Your task to perform on an android device: turn off sleep mode Image 0: 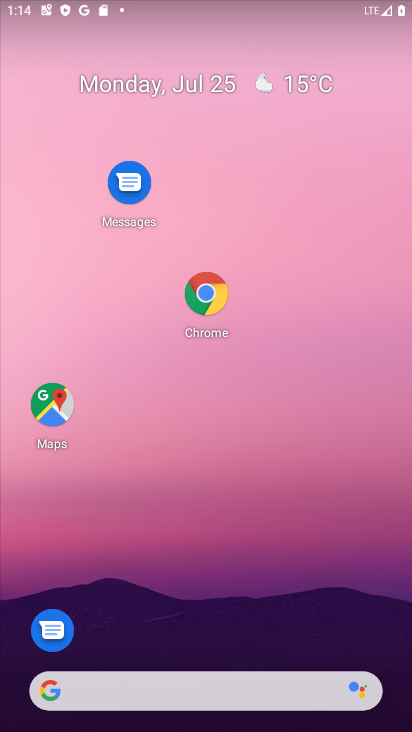
Step 0: press home button
Your task to perform on an android device: turn off sleep mode Image 1: 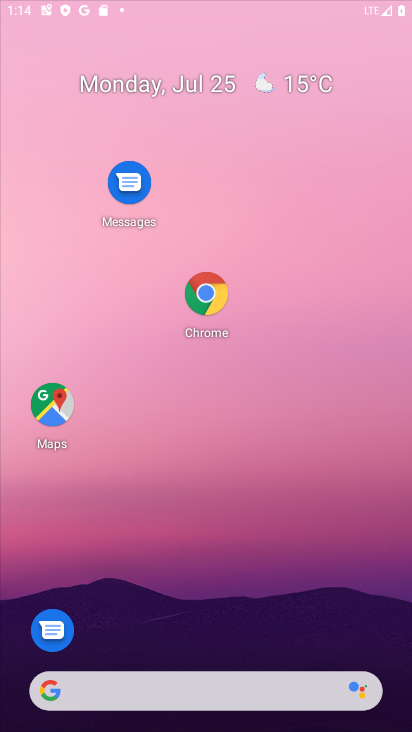
Step 1: drag from (203, 572) to (278, 12)
Your task to perform on an android device: turn off sleep mode Image 2: 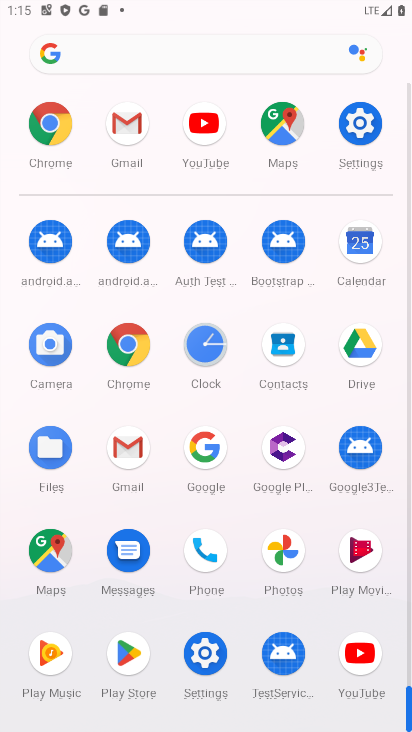
Step 2: click (198, 679)
Your task to perform on an android device: turn off sleep mode Image 3: 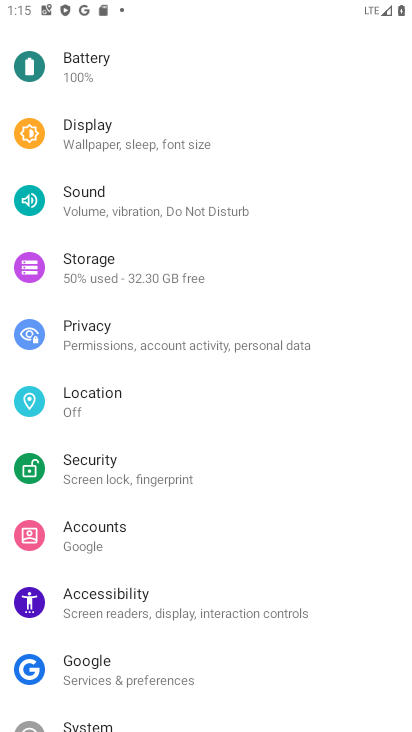
Step 3: click (75, 125)
Your task to perform on an android device: turn off sleep mode Image 4: 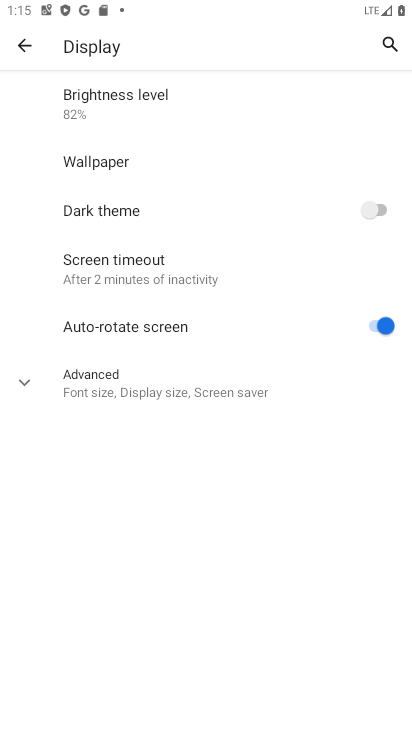
Step 4: task complete